Your task to perform on an android device: Open display settings Image 0: 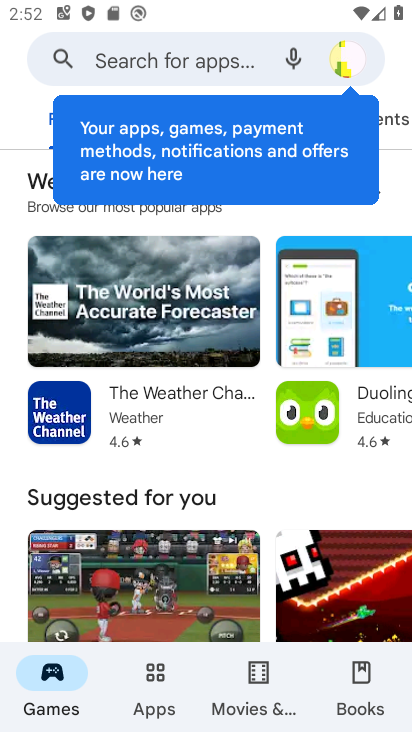
Step 0: press home button
Your task to perform on an android device: Open display settings Image 1: 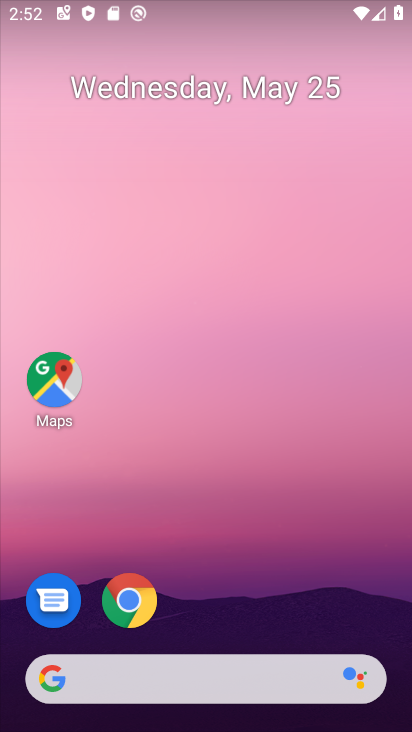
Step 1: drag from (13, 622) to (249, 50)
Your task to perform on an android device: Open display settings Image 2: 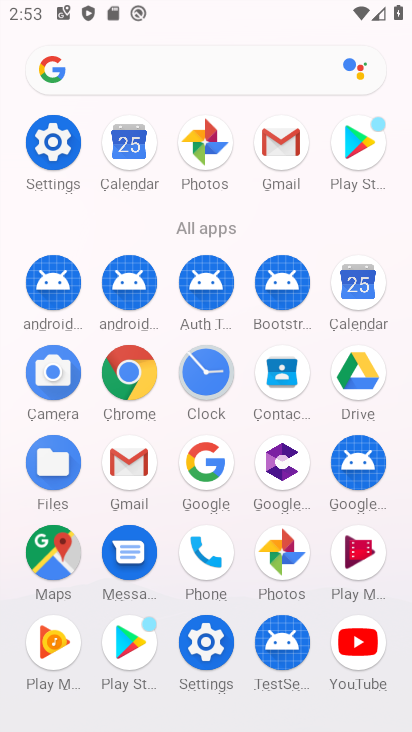
Step 2: click (54, 149)
Your task to perform on an android device: Open display settings Image 3: 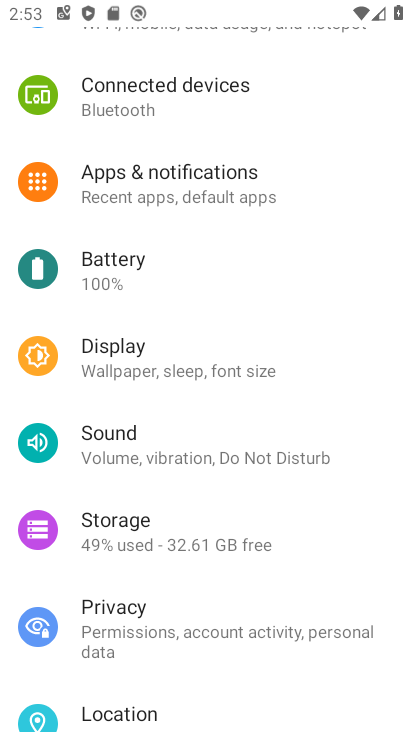
Step 3: drag from (160, 230) to (132, 505)
Your task to perform on an android device: Open display settings Image 4: 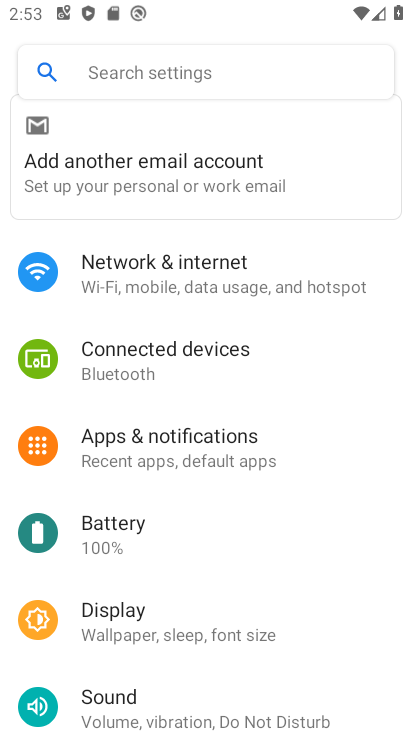
Step 4: click (141, 616)
Your task to perform on an android device: Open display settings Image 5: 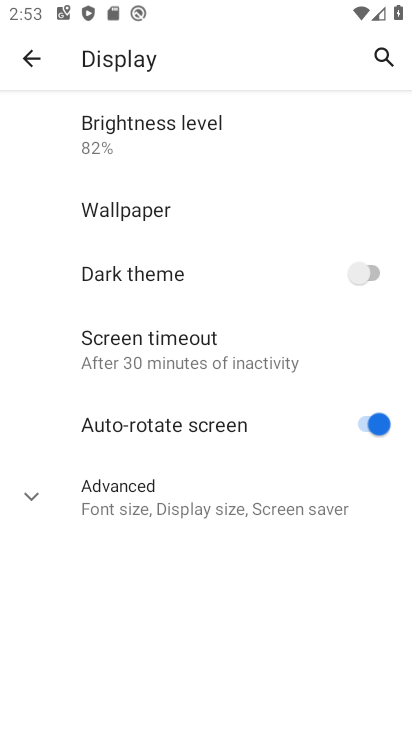
Step 5: task complete